Your task to perform on an android device: snooze an email in the gmail app Image 0: 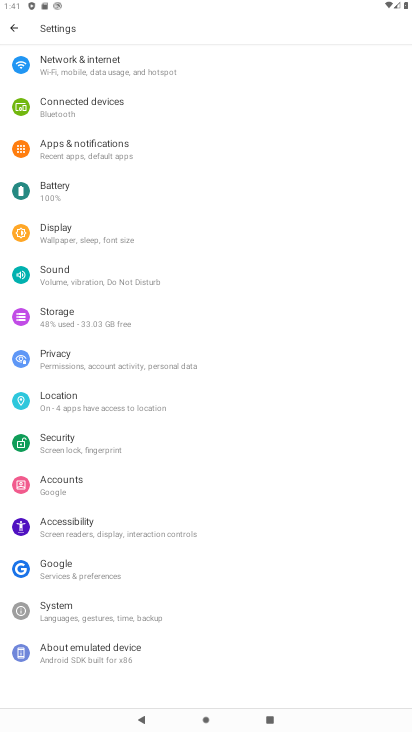
Step 0: press home button
Your task to perform on an android device: snooze an email in the gmail app Image 1: 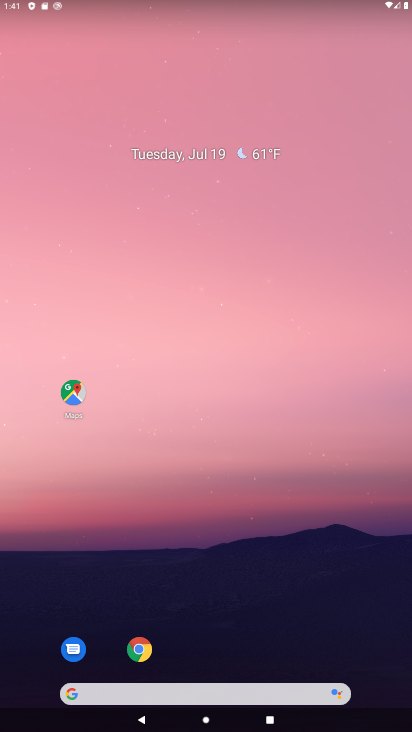
Step 1: drag from (286, 644) to (168, 76)
Your task to perform on an android device: snooze an email in the gmail app Image 2: 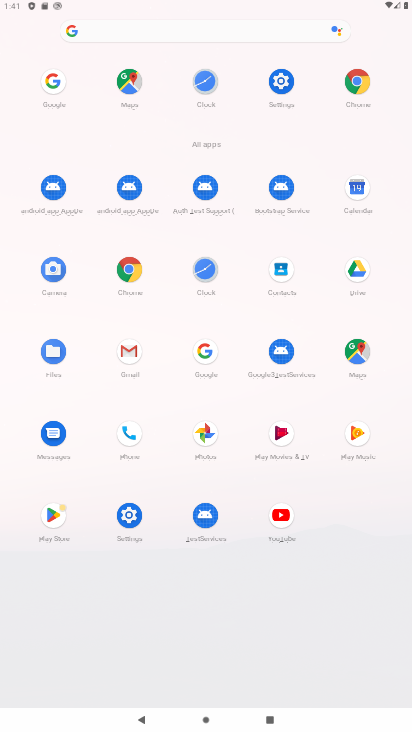
Step 2: click (132, 348)
Your task to perform on an android device: snooze an email in the gmail app Image 3: 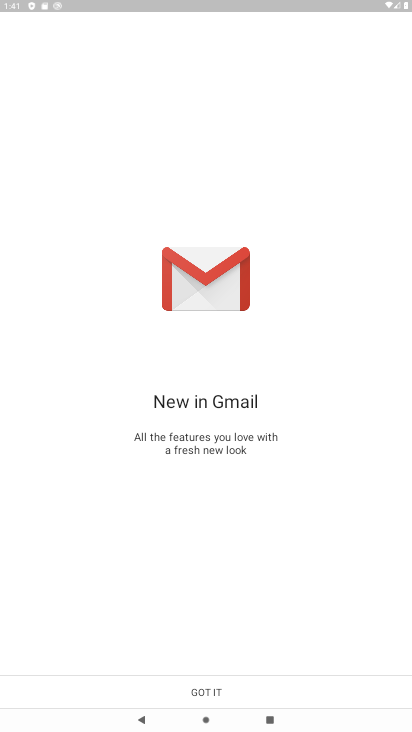
Step 3: click (222, 702)
Your task to perform on an android device: snooze an email in the gmail app Image 4: 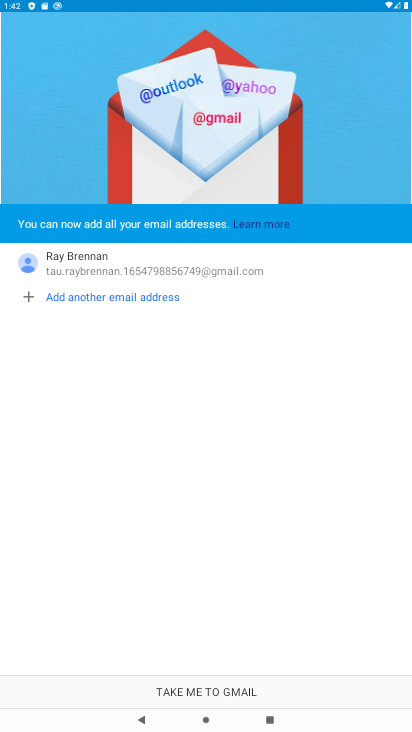
Step 4: click (255, 696)
Your task to perform on an android device: snooze an email in the gmail app Image 5: 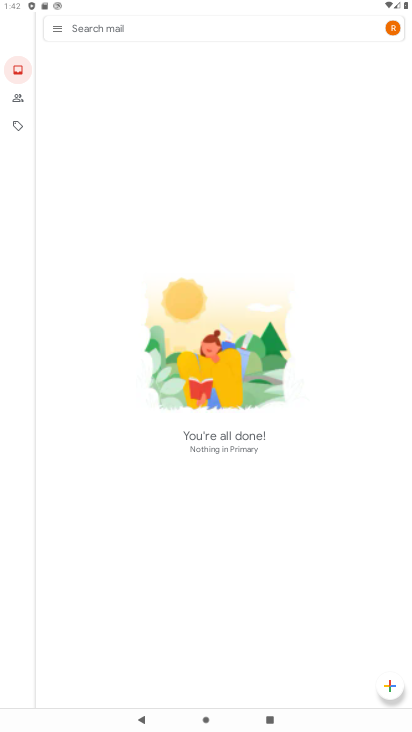
Step 5: click (52, 24)
Your task to perform on an android device: snooze an email in the gmail app Image 6: 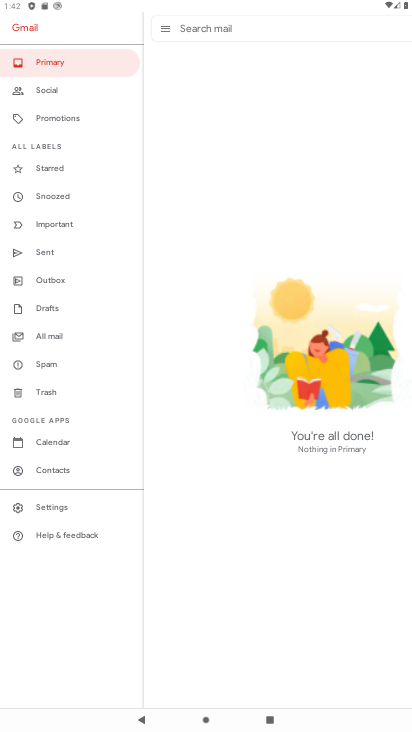
Step 6: click (57, 342)
Your task to perform on an android device: snooze an email in the gmail app Image 7: 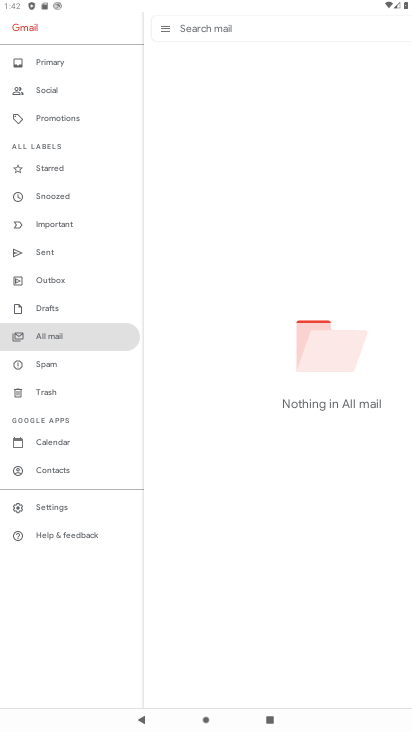
Step 7: task complete